Your task to perform on an android device: open chrome privacy settings Image 0: 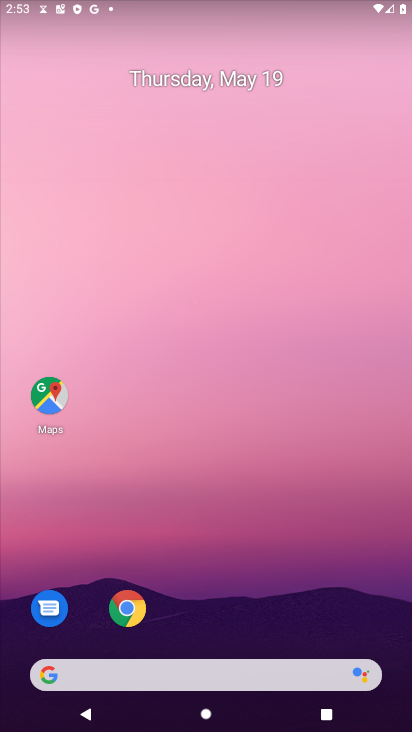
Step 0: click (132, 612)
Your task to perform on an android device: open chrome privacy settings Image 1: 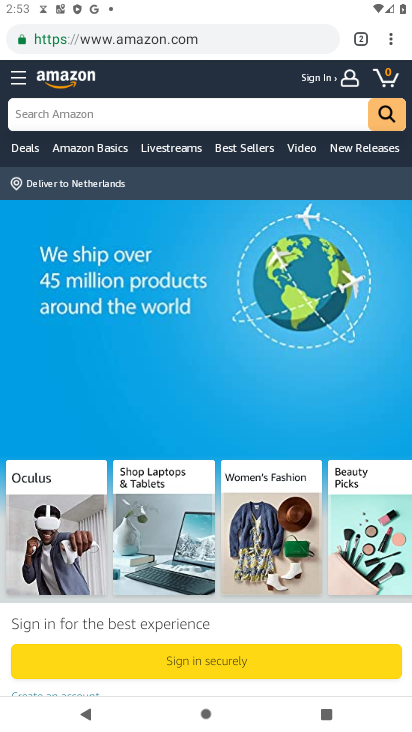
Step 1: click (394, 35)
Your task to perform on an android device: open chrome privacy settings Image 2: 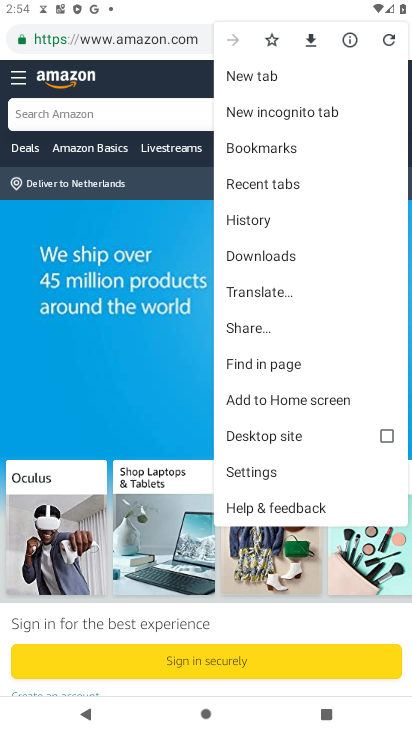
Step 2: click (333, 476)
Your task to perform on an android device: open chrome privacy settings Image 3: 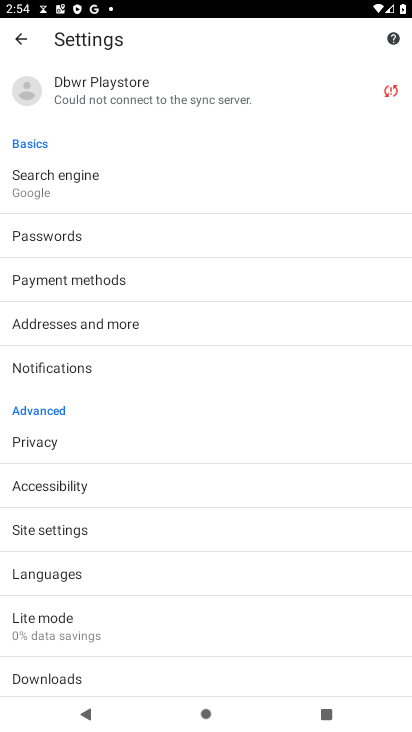
Step 3: click (171, 442)
Your task to perform on an android device: open chrome privacy settings Image 4: 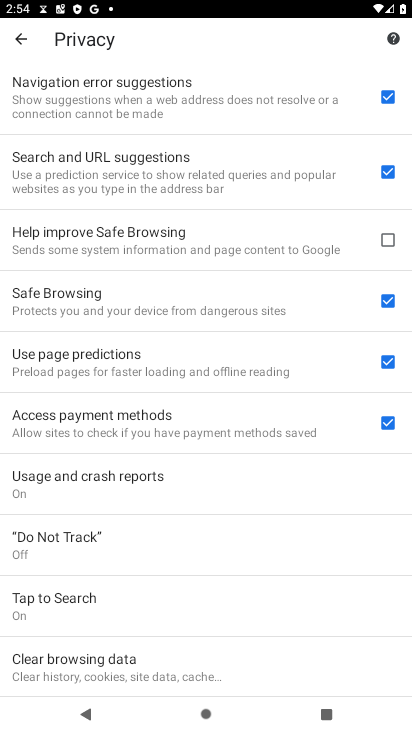
Step 4: task complete